Your task to perform on an android device: What's on my calendar tomorrow? Image 0: 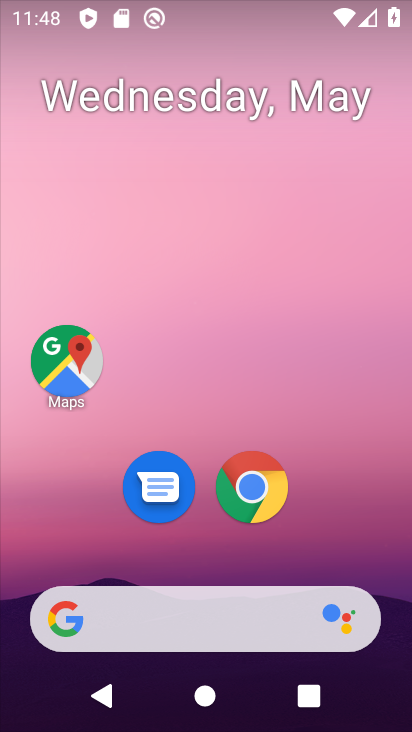
Step 0: drag from (261, 711) to (183, 129)
Your task to perform on an android device: What's on my calendar tomorrow? Image 1: 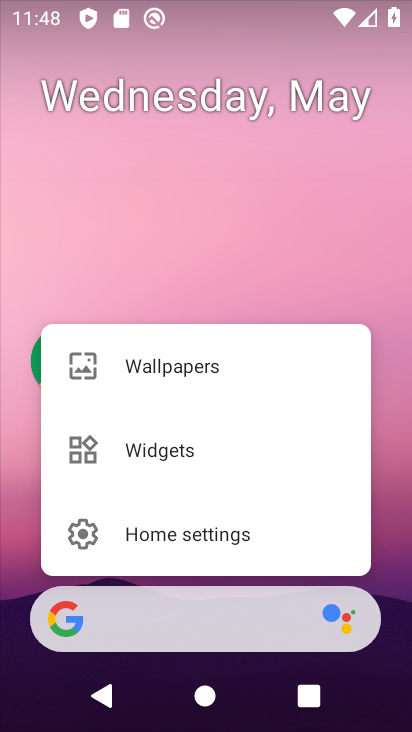
Step 1: drag from (250, 650) to (168, 22)
Your task to perform on an android device: What's on my calendar tomorrow? Image 2: 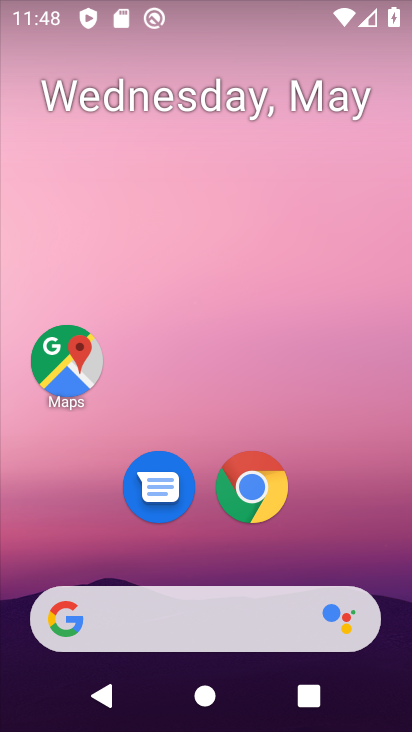
Step 2: drag from (263, 480) to (243, 64)
Your task to perform on an android device: What's on my calendar tomorrow? Image 3: 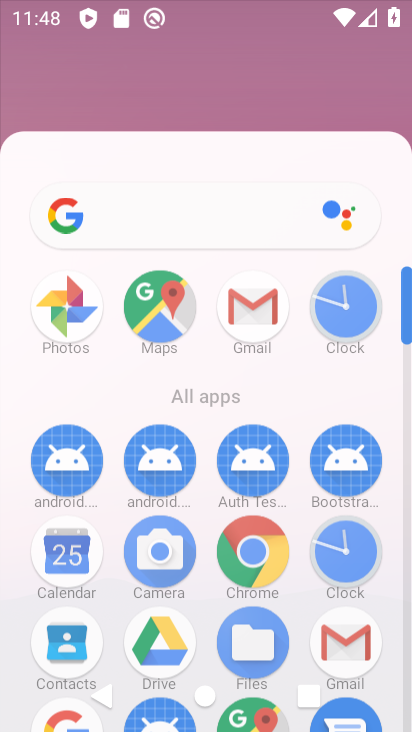
Step 3: drag from (275, 659) to (211, 97)
Your task to perform on an android device: What's on my calendar tomorrow? Image 4: 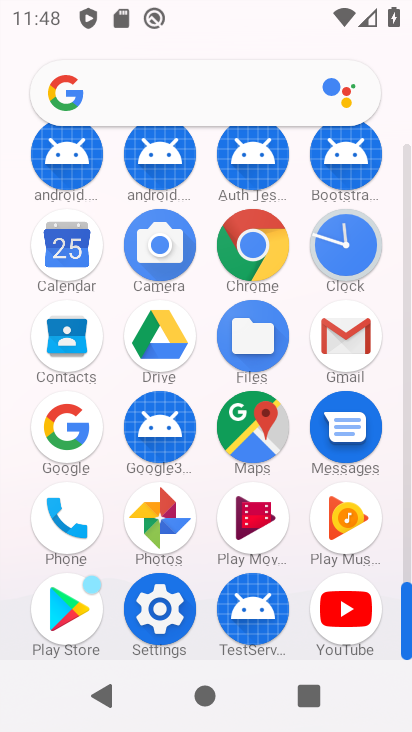
Step 4: click (46, 237)
Your task to perform on an android device: What's on my calendar tomorrow? Image 5: 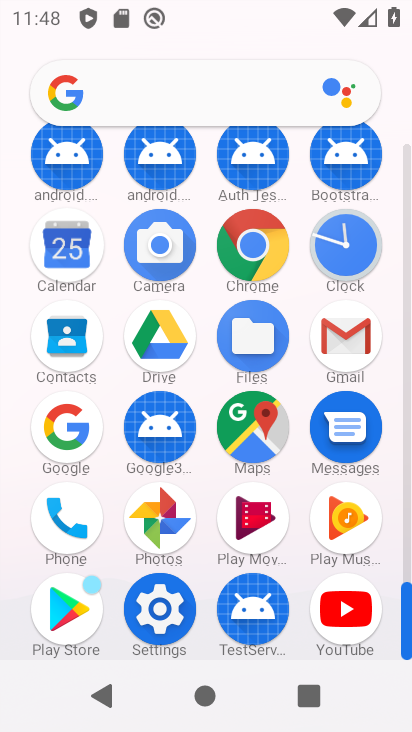
Step 5: click (48, 242)
Your task to perform on an android device: What's on my calendar tomorrow? Image 6: 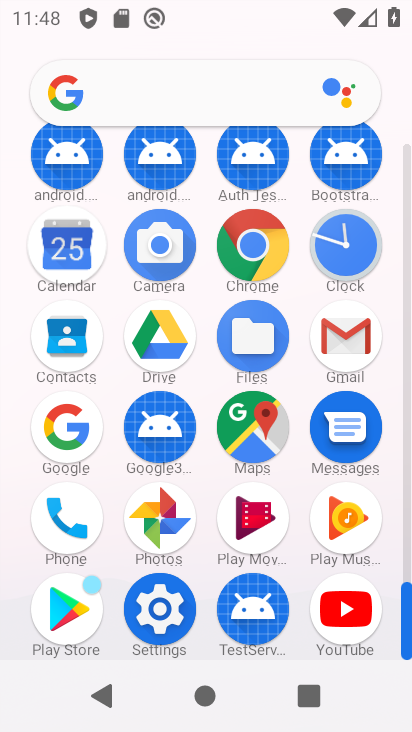
Step 6: click (48, 242)
Your task to perform on an android device: What's on my calendar tomorrow? Image 7: 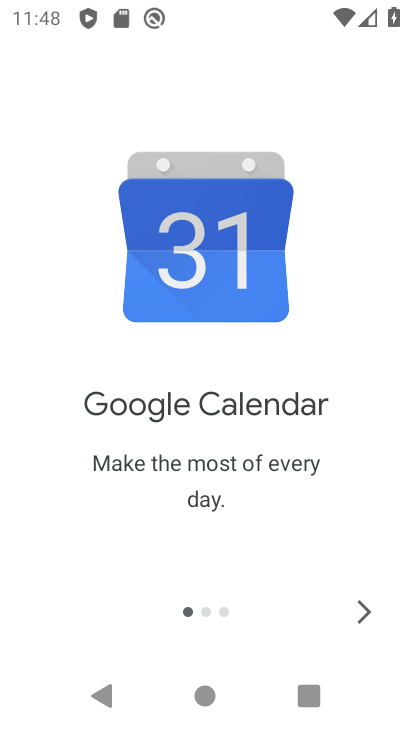
Step 7: click (359, 605)
Your task to perform on an android device: What's on my calendar tomorrow? Image 8: 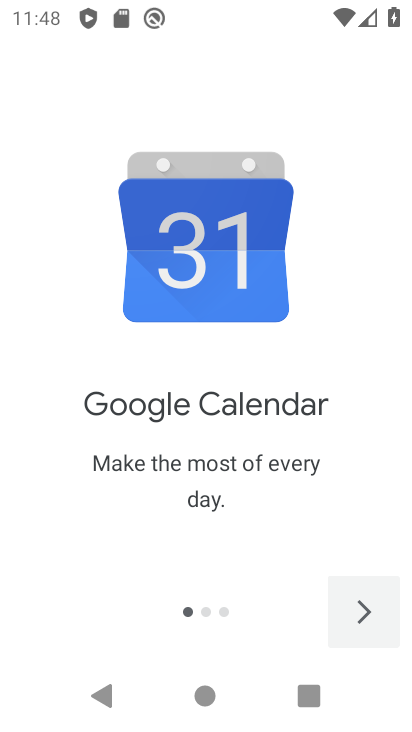
Step 8: drag from (366, 605) to (305, 610)
Your task to perform on an android device: What's on my calendar tomorrow? Image 9: 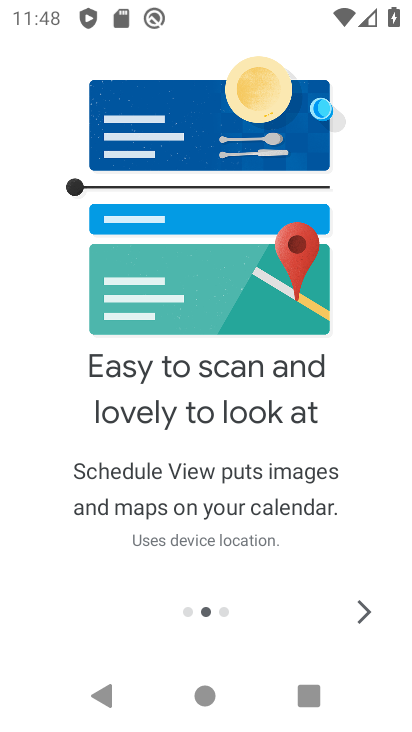
Step 9: click (365, 607)
Your task to perform on an android device: What's on my calendar tomorrow? Image 10: 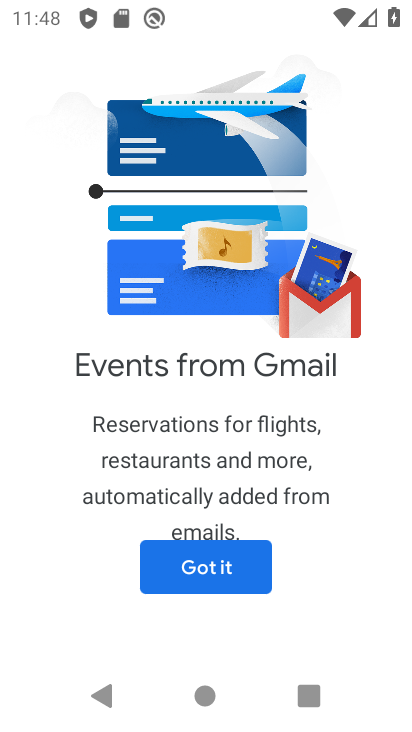
Step 10: click (376, 610)
Your task to perform on an android device: What's on my calendar tomorrow? Image 11: 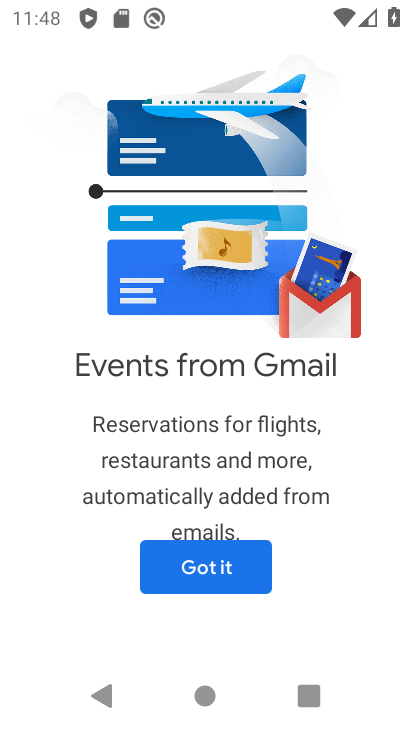
Step 11: click (233, 566)
Your task to perform on an android device: What's on my calendar tomorrow? Image 12: 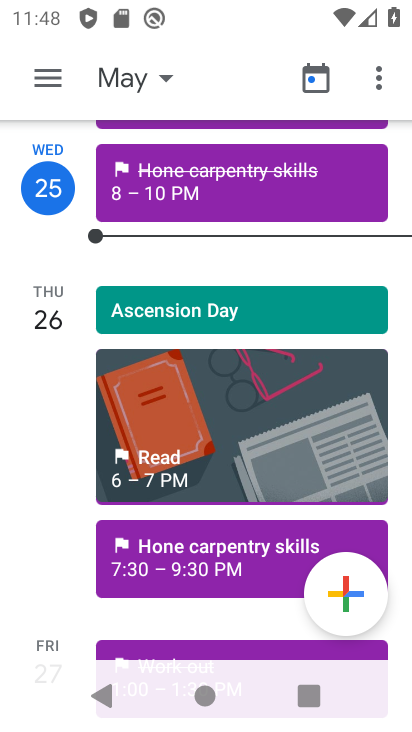
Step 12: drag from (162, 538) to (105, 145)
Your task to perform on an android device: What's on my calendar tomorrow? Image 13: 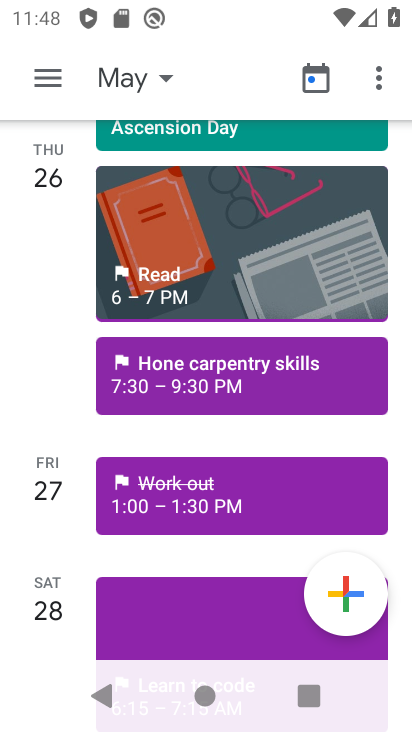
Step 13: drag from (200, 457) to (167, 245)
Your task to perform on an android device: What's on my calendar tomorrow? Image 14: 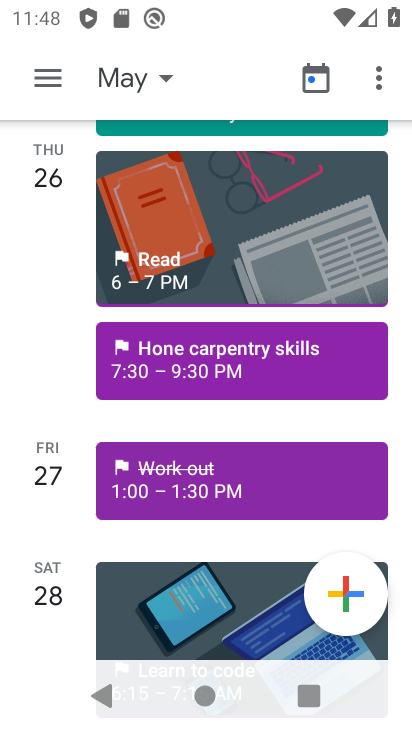
Step 14: drag from (171, 487) to (177, 216)
Your task to perform on an android device: What's on my calendar tomorrow? Image 15: 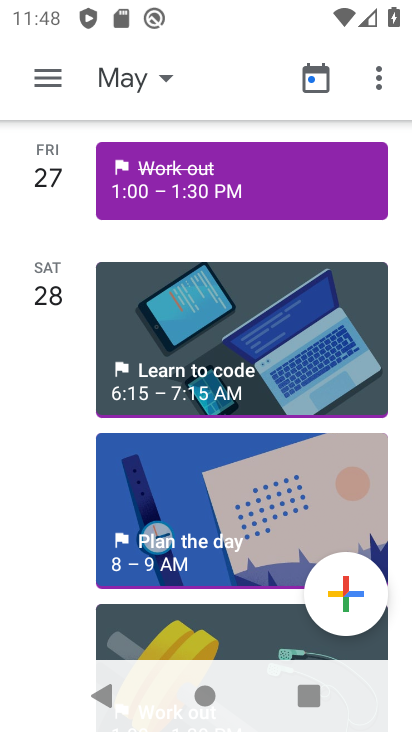
Step 15: click (155, 175)
Your task to perform on an android device: What's on my calendar tomorrow? Image 16: 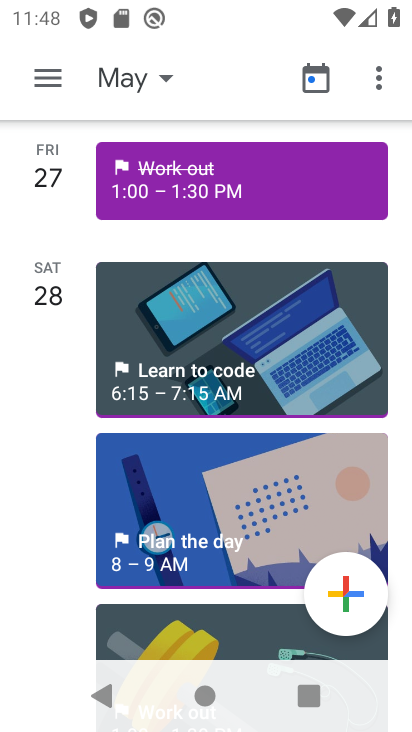
Step 16: click (157, 176)
Your task to perform on an android device: What's on my calendar tomorrow? Image 17: 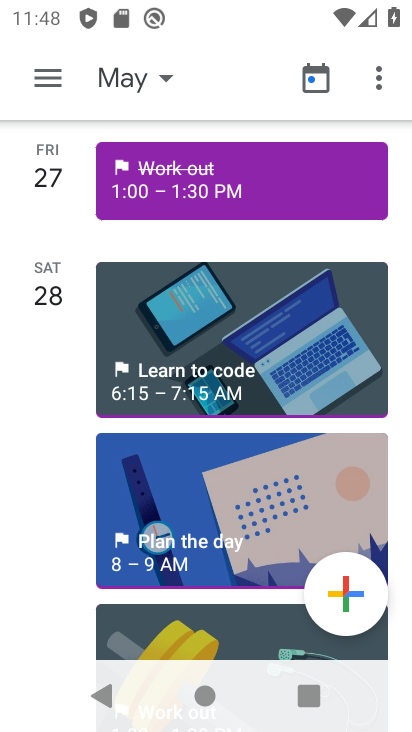
Step 17: click (157, 176)
Your task to perform on an android device: What's on my calendar tomorrow? Image 18: 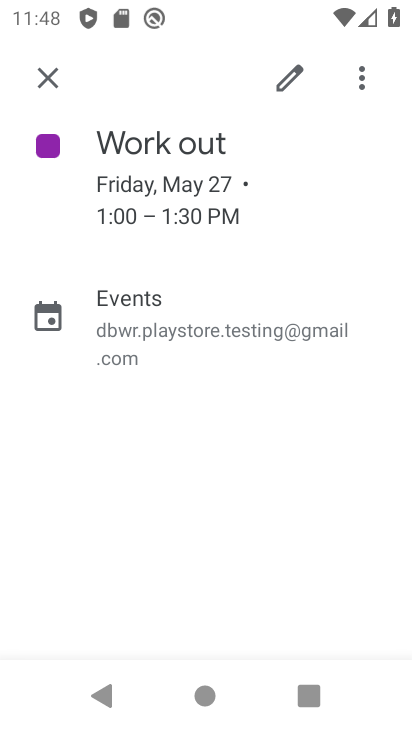
Step 18: task complete